Your task to perform on an android device: Find coffee shops on Maps Image 0: 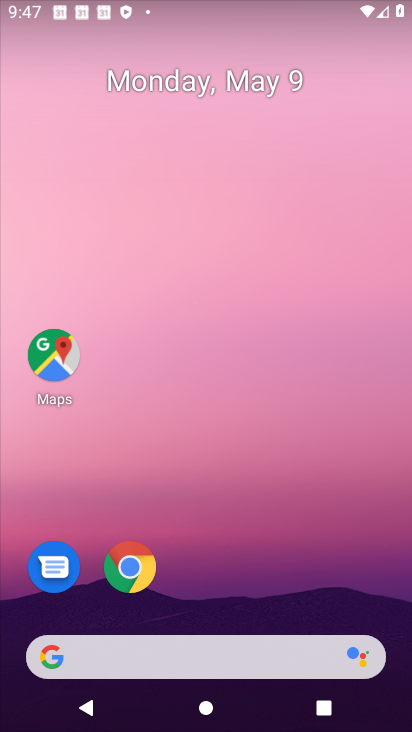
Step 0: click (37, 362)
Your task to perform on an android device: Find coffee shops on Maps Image 1: 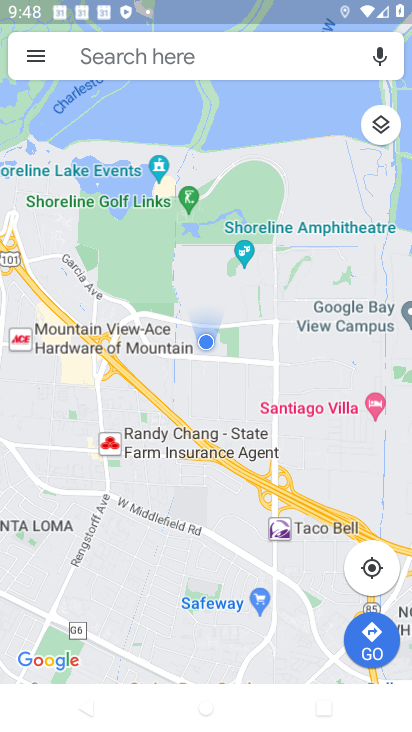
Step 1: click (145, 51)
Your task to perform on an android device: Find coffee shops on Maps Image 2: 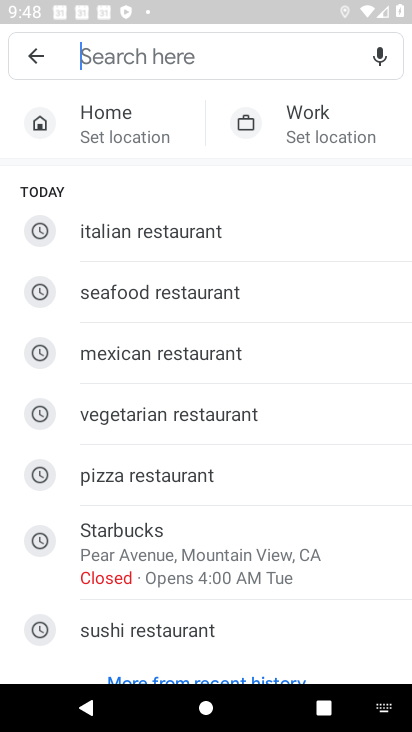
Step 2: type "coffee shops"
Your task to perform on an android device: Find coffee shops on Maps Image 3: 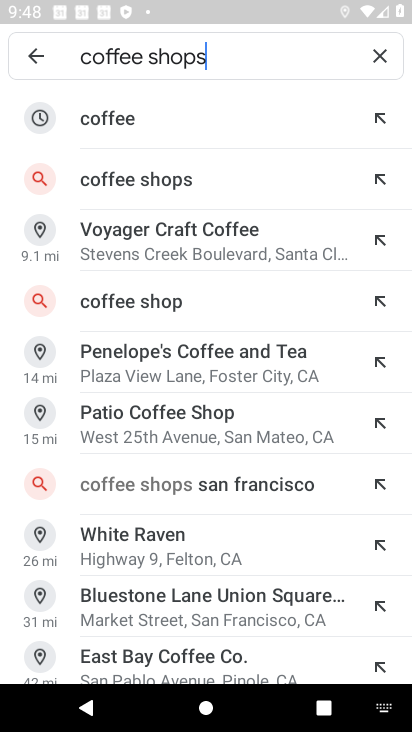
Step 3: click (111, 165)
Your task to perform on an android device: Find coffee shops on Maps Image 4: 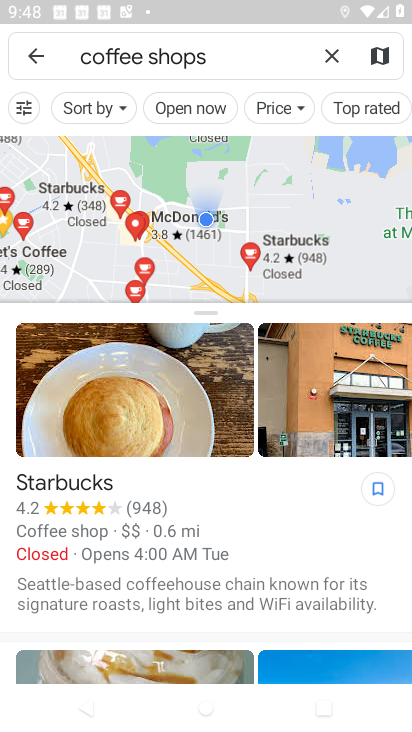
Step 4: task complete